Your task to perform on an android device: Open the calendar app, open the side menu, and click the "Day" option Image 0: 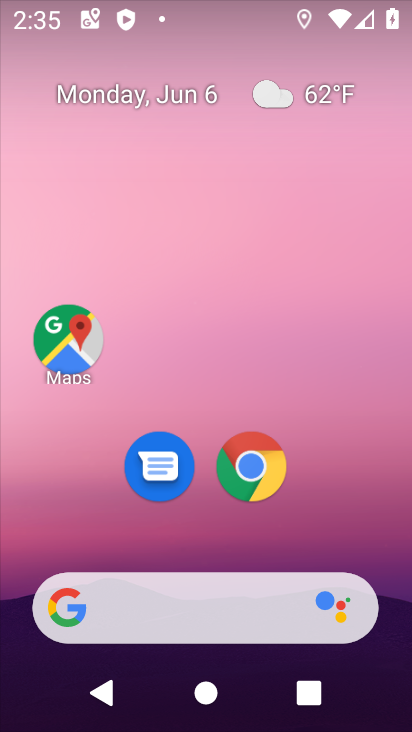
Step 0: drag from (250, 691) to (157, 226)
Your task to perform on an android device: Open the calendar app, open the side menu, and click the "Day" option Image 1: 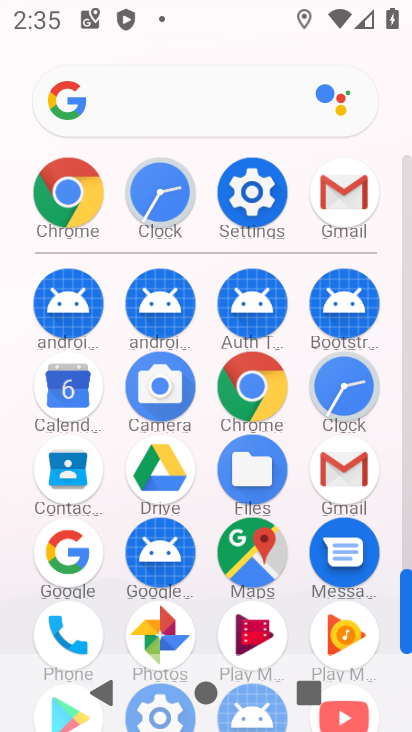
Step 1: click (53, 396)
Your task to perform on an android device: Open the calendar app, open the side menu, and click the "Day" option Image 2: 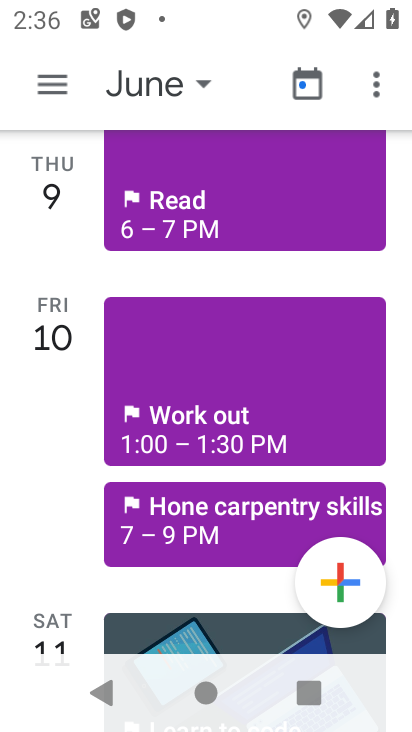
Step 2: click (52, 94)
Your task to perform on an android device: Open the calendar app, open the side menu, and click the "Day" option Image 3: 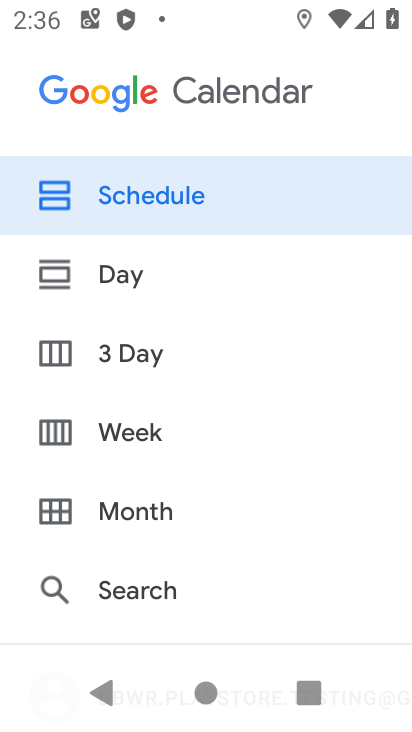
Step 3: click (106, 265)
Your task to perform on an android device: Open the calendar app, open the side menu, and click the "Day" option Image 4: 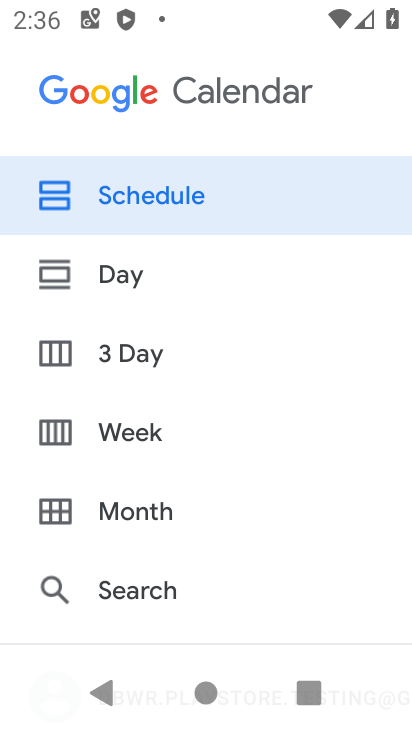
Step 4: click (106, 280)
Your task to perform on an android device: Open the calendar app, open the side menu, and click the "Day" option Image 5: 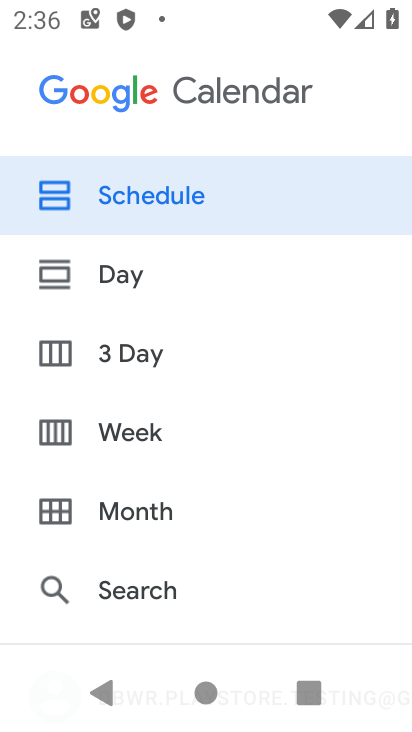
Step 5: click (118, 269)
Your task to perform on an android device: Open the calendar app, open the side menu, and click the "Day" option Image 6: 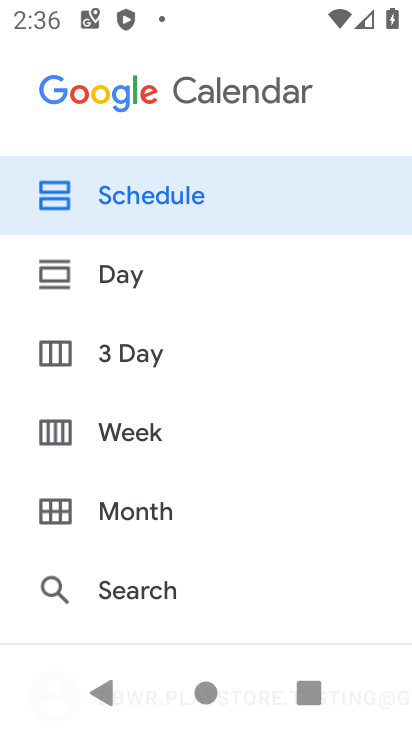
Step 6: click (119, 268)
Your task to perform on an android device: Open the calendar app, open the side menu, and click the "Day" option Image 7: 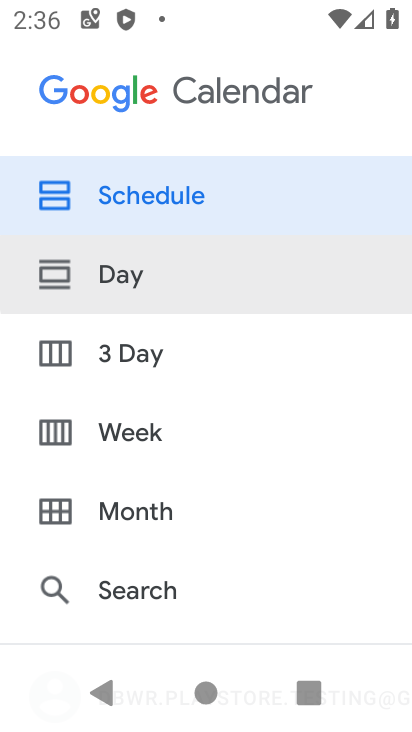
Step 7: click (121, 269)
Your task to perform on an android device: Open the calendar app, open the side menu, and click the "Day" option Image 8: 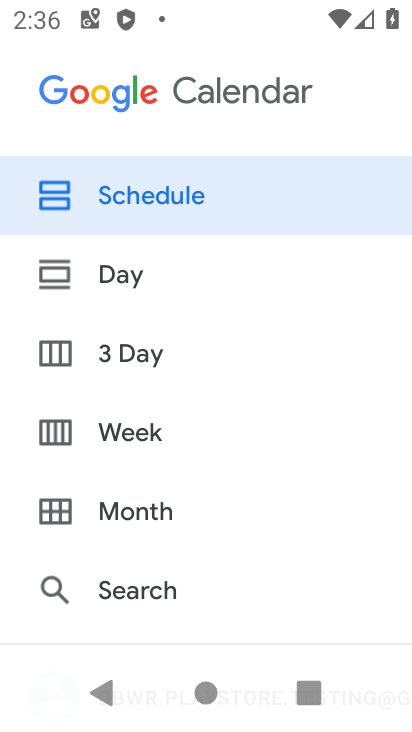
Step 8: click (118, 263)
Your task to perform on an android device: Open the calendar app, open the side menu, and click the "Day" option Image 9: 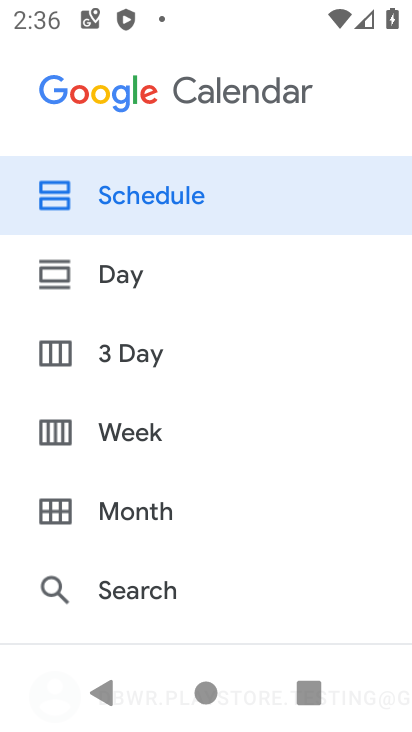
Step 9: click (116, 257)
Your task to perform on an android device: Open the calendar app, open the side menu, and click the "Day" option Image 10: 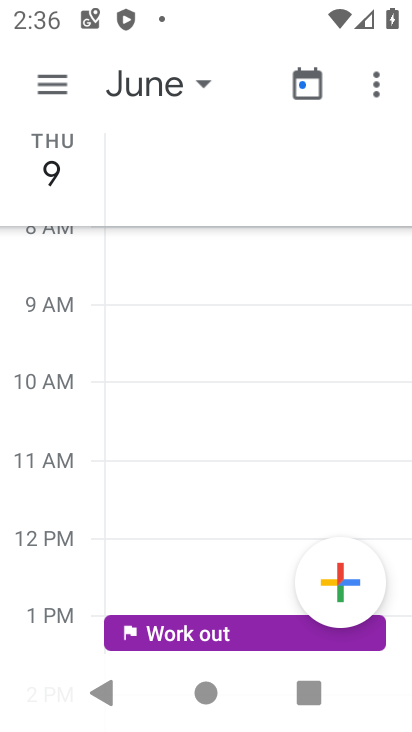
Step 10: task complete